Your task to perform on an android device: turn off wifi Image 0: 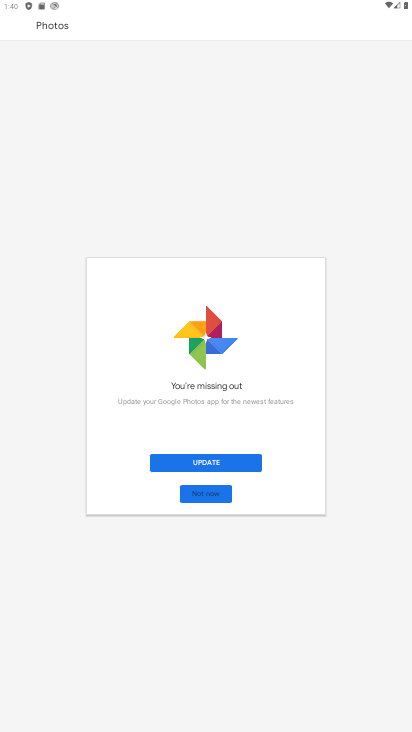
Step 0: drag from (168, 550) to (238, 94)
Your task to perform on an android device: turn off wifi Image 1: 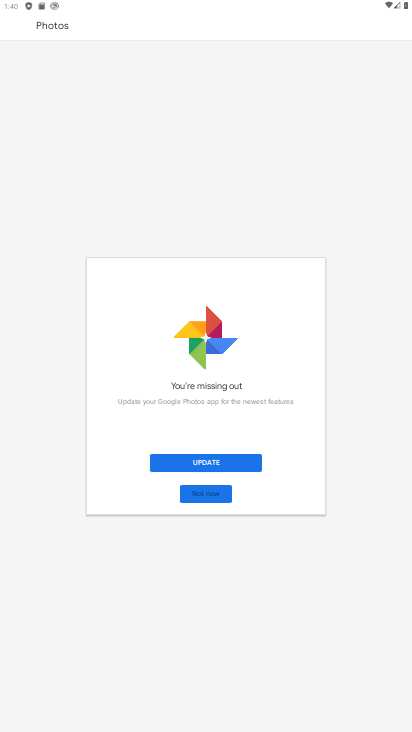
Step 1: press home button
Your task to perform on an android device: turn off wifi Image 2: 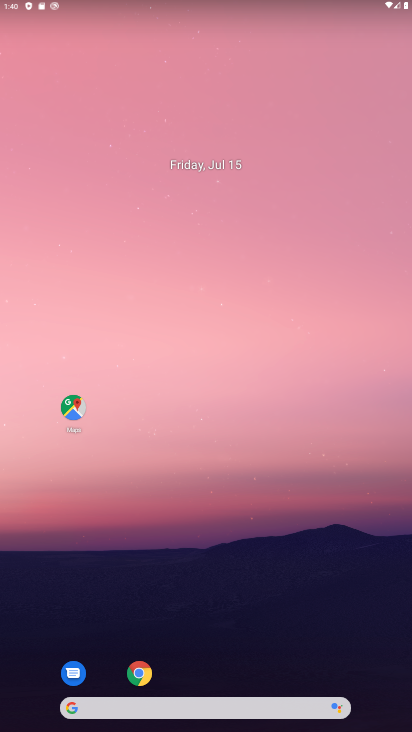
Step 2: drag from (283, 585) to (280, 206)
Your task to perform on an android device: turn off wifi Image 3: 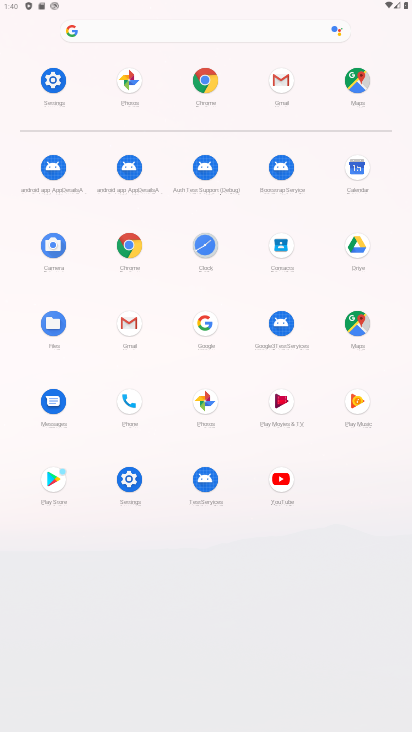
Step 3: click (61, 92)
Your task to perform on an android device: turn off wifi Image 4: 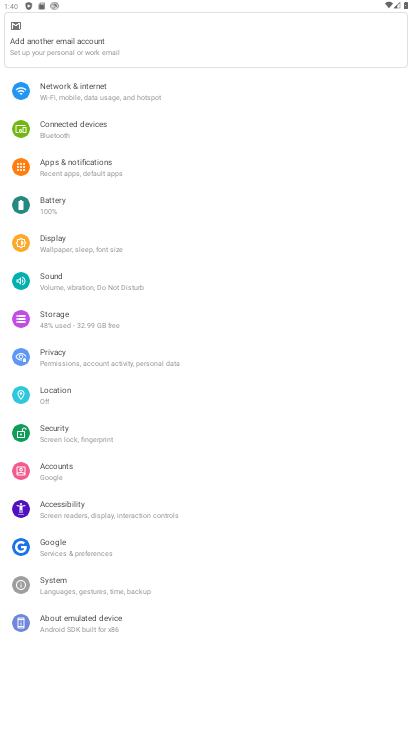
Step 4: click (73, 97)
Your task to perform on an android device: turn off wifi Image 5: 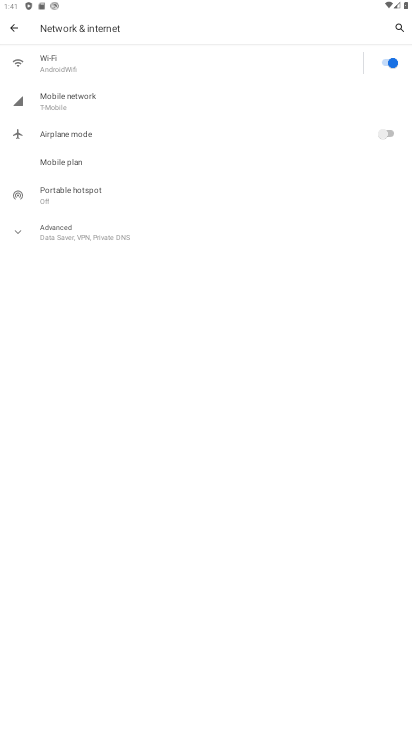
Step 5: click (389, 54)
Your task to perform on an android device: turn off wifi Image 6: 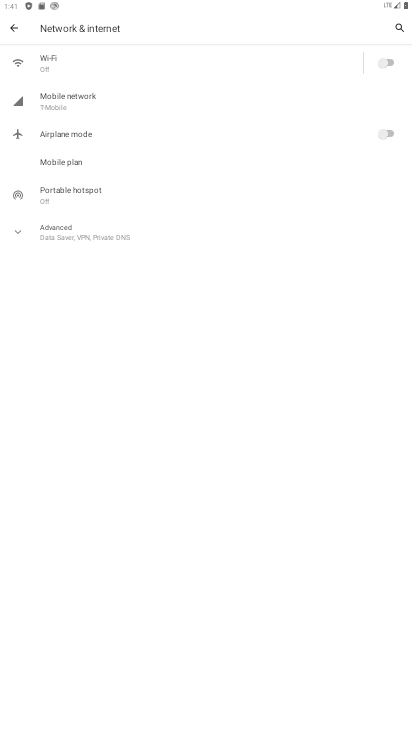
Step 6: task complete